Your task to perform on an android device: Go to display settings Image 0: 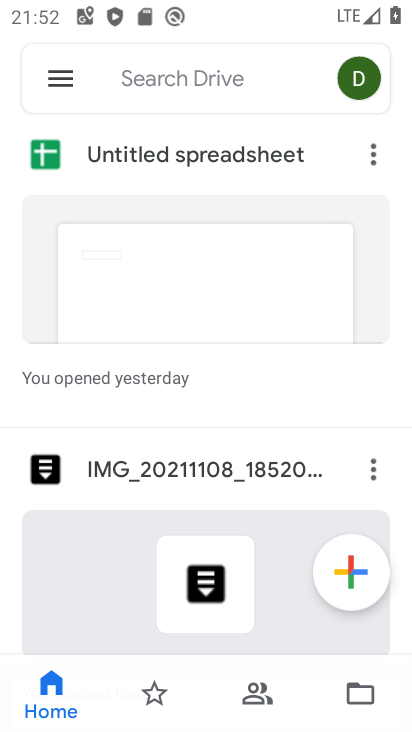
Step 0: press home button
Your task to perform on an android device: Go to display settings Image 1: 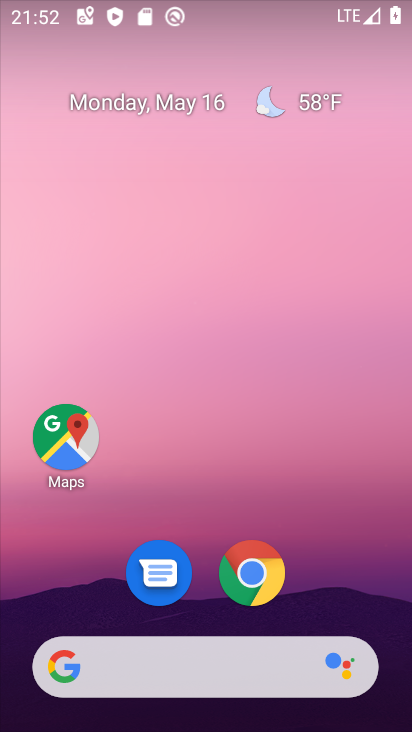
Step 1: drag from (199, 719) to (190, 187)
Your task to perform on an android device: Go to display settings Image 2: 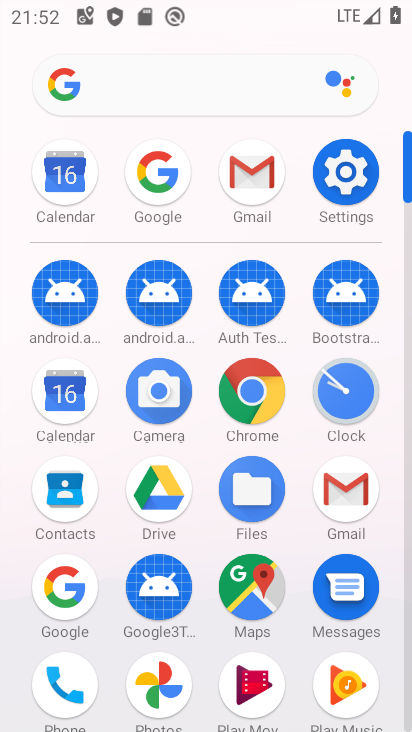
Step 2: click (343, 173)
Your task to perform on an android device: Go to display settings Image 3: 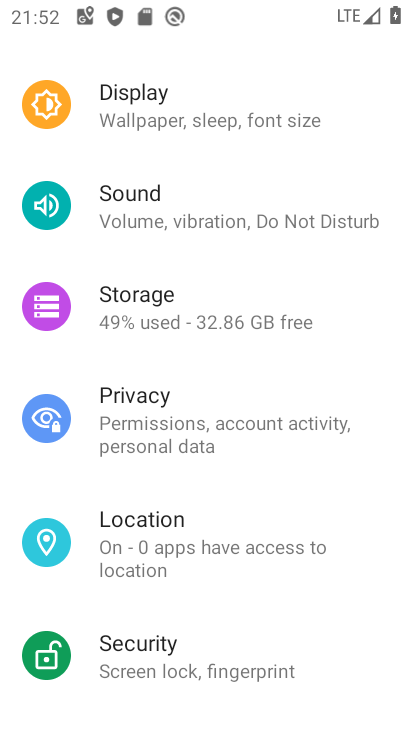
Step 3: click (147, 113)
Your task to perform on an android device: Go to display settings Image 4: 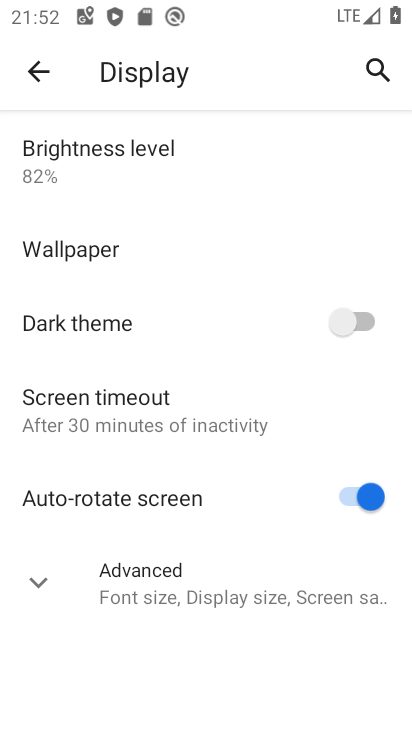
Step 4: task complete